Your task to perform on an android device: What's the weather today? Image 0: 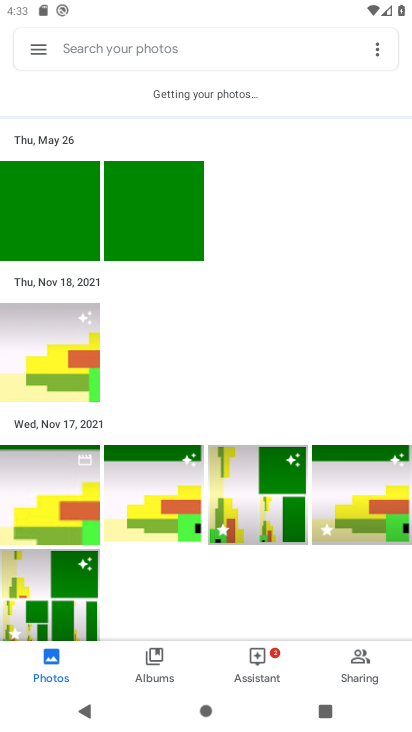
Step 0: press back button
Your task to perform on an android device: What's the weather today? Image 1: 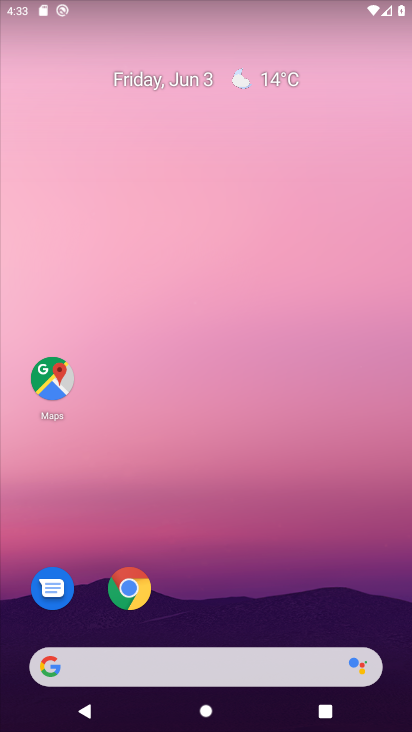
Step 1: drag from (278, 503) to (214, 13)
Your task to perform on an android device: What's the weather today? Image 2: 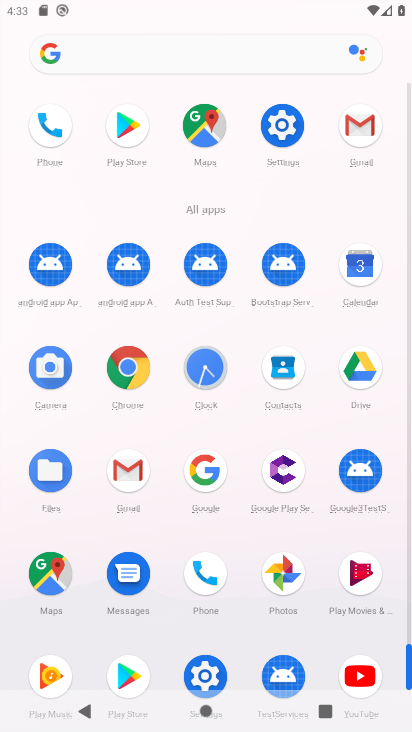
Step 2: click (128, 365)
Your task to perform on an android device: What's the weather today? Image 3: 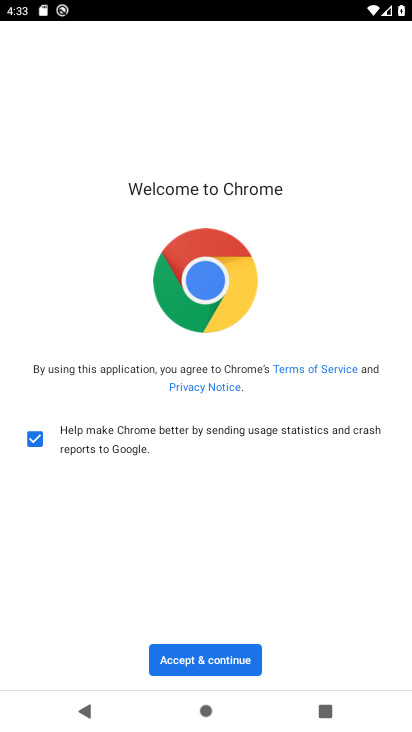
Step 3: click (198, 650)
Your task to perform on an android device: What's the weather today? Image 4: 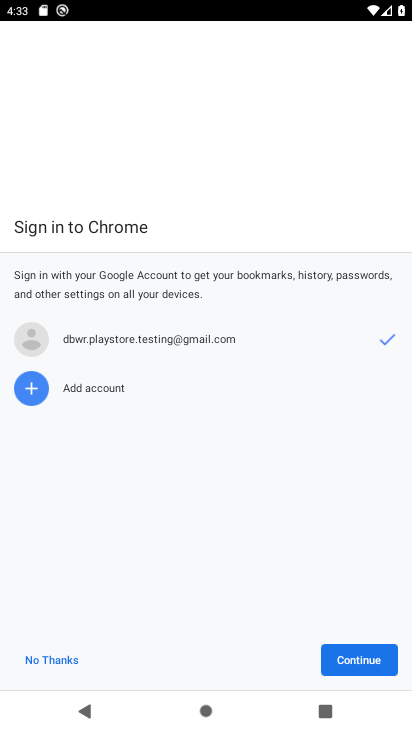
Step 4: click (373, 654)
Your task to perform on an android device: What's the weather today? Image 5: 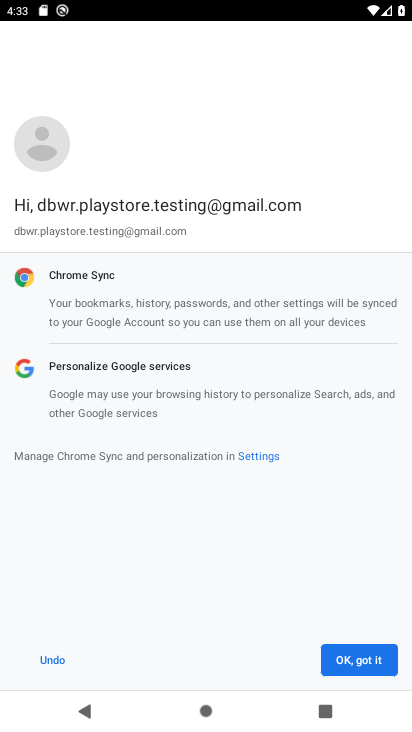
Step 5: click (373, 654)
Your task to perform on an android device: What's the weather today? Image 6: 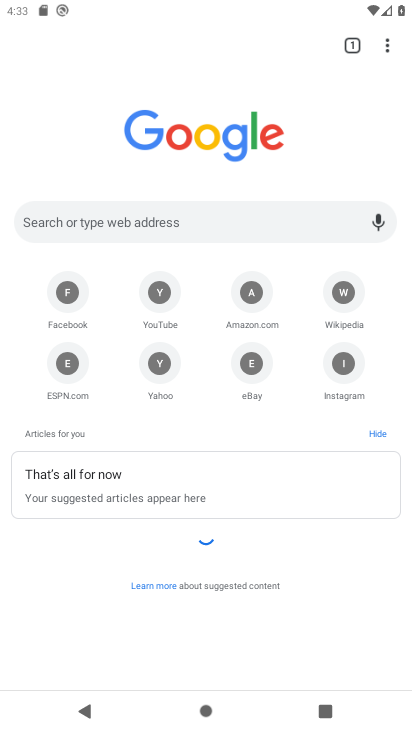
Step 6: click (163, 43)
Your task to perform on an android device: What's the weather today? Image 7: 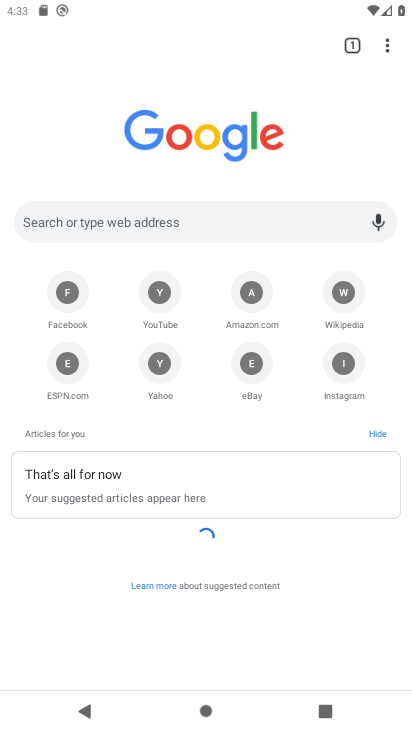
Step 7: click (182, 210)
Your task to perform on an android device: What's the weather today? Image 8: 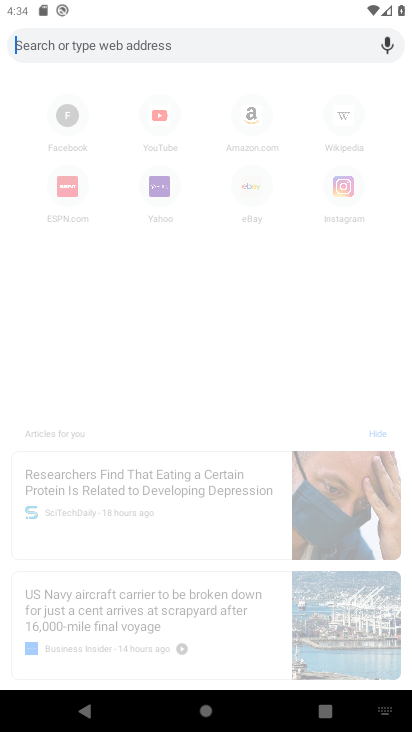
Step 8: type "What's the weather today?"
Your task to perform on an android device: What's the weather today? Image 9: 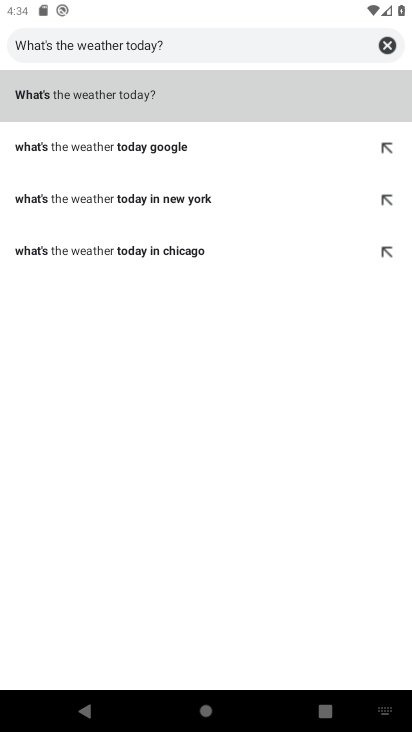
Step 9: click (133, 82)
Your task to perform on an android device: What's the weather today? Image 10: 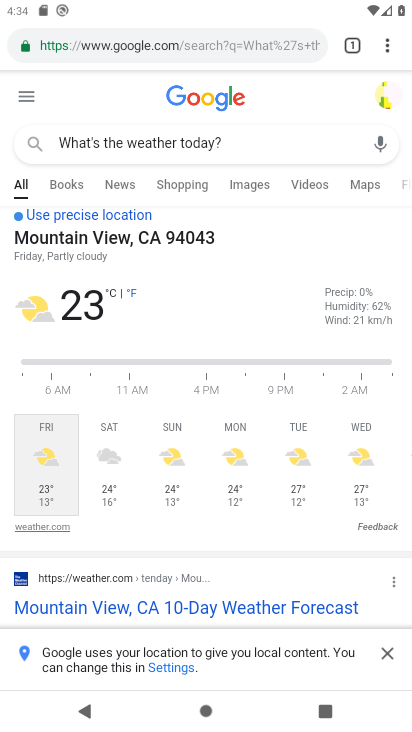
Step 10: task complete